Your task to perform on an android device: install app "DoorDash - Dasher" Image 0: 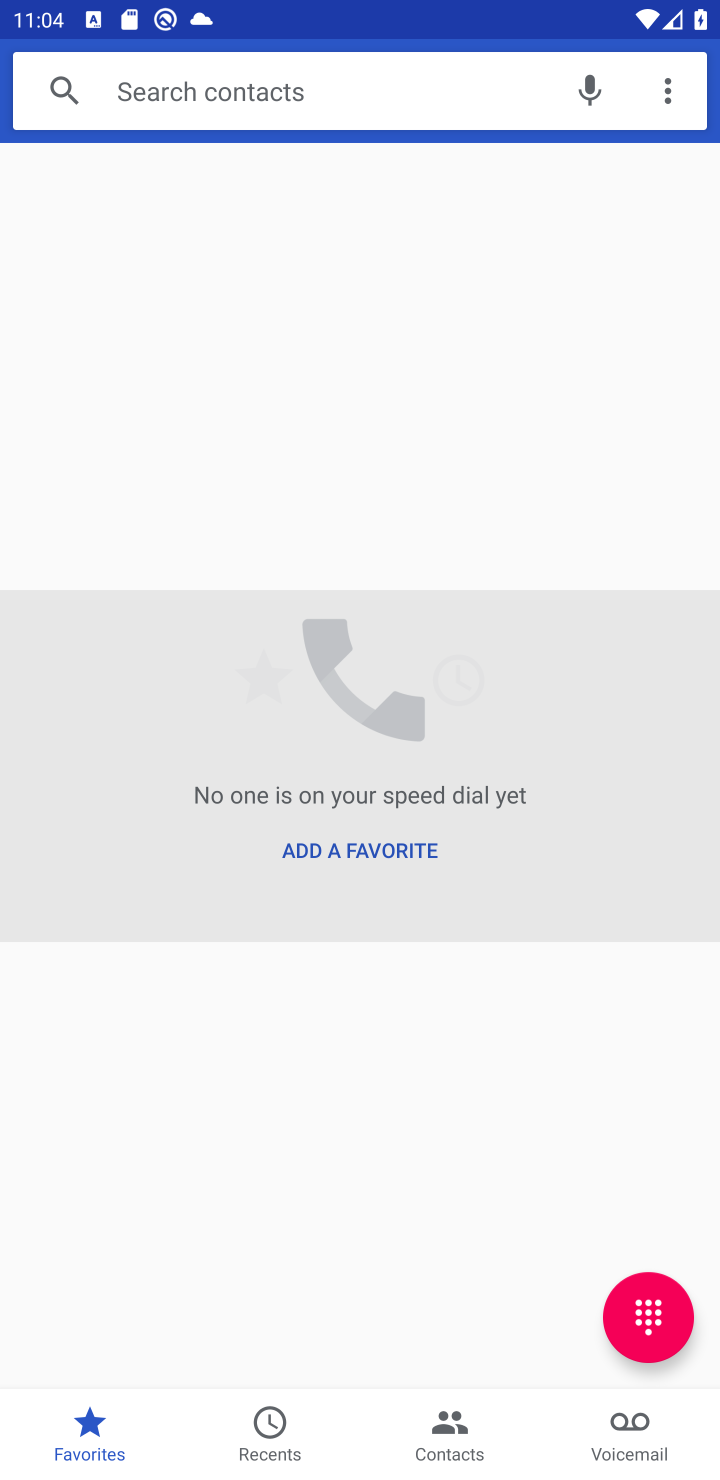
Step 0: press home button
Your task to perform on an android device: install app "DoorDash - Dasher" Image 1: 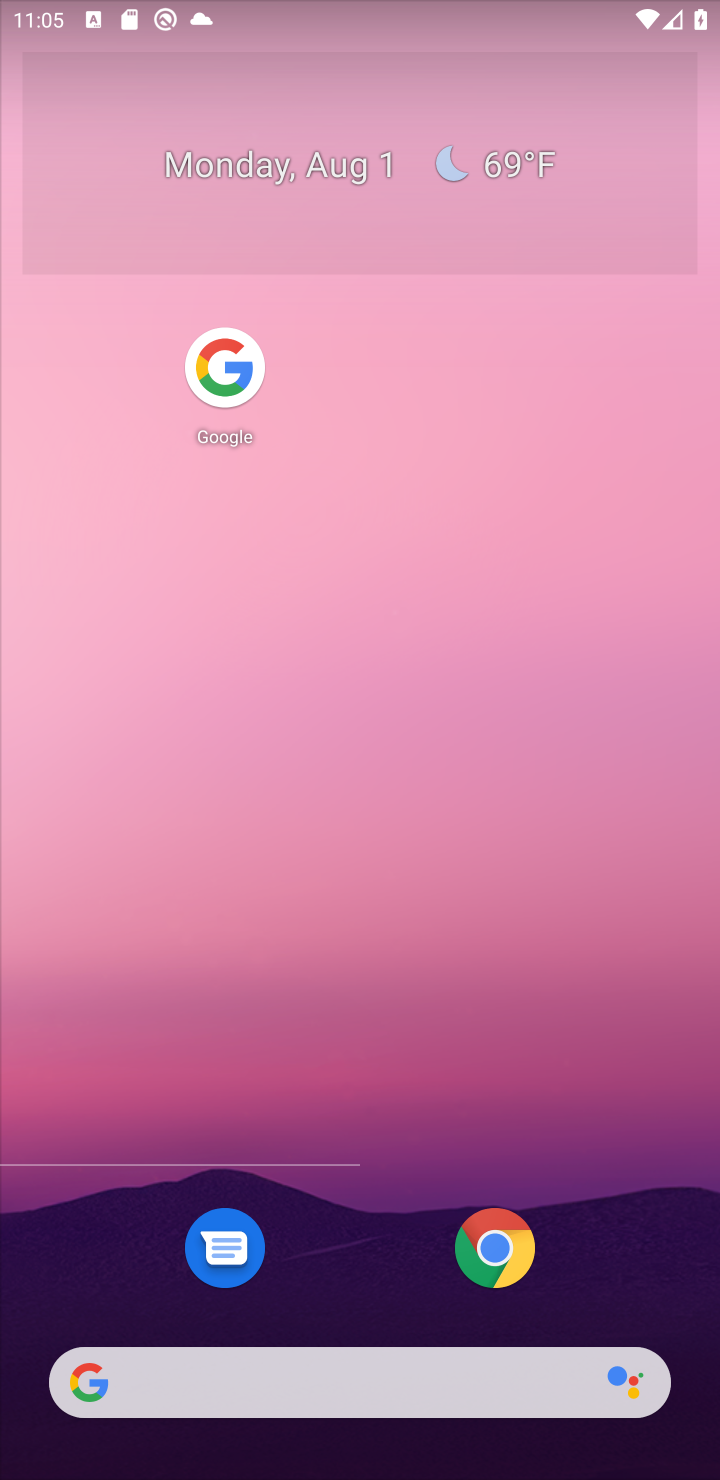
Step 1: drag from (401, 963) to (563, 14)
Your task to perform on an android device: install app "DoorDash - Dasher" Image 2: 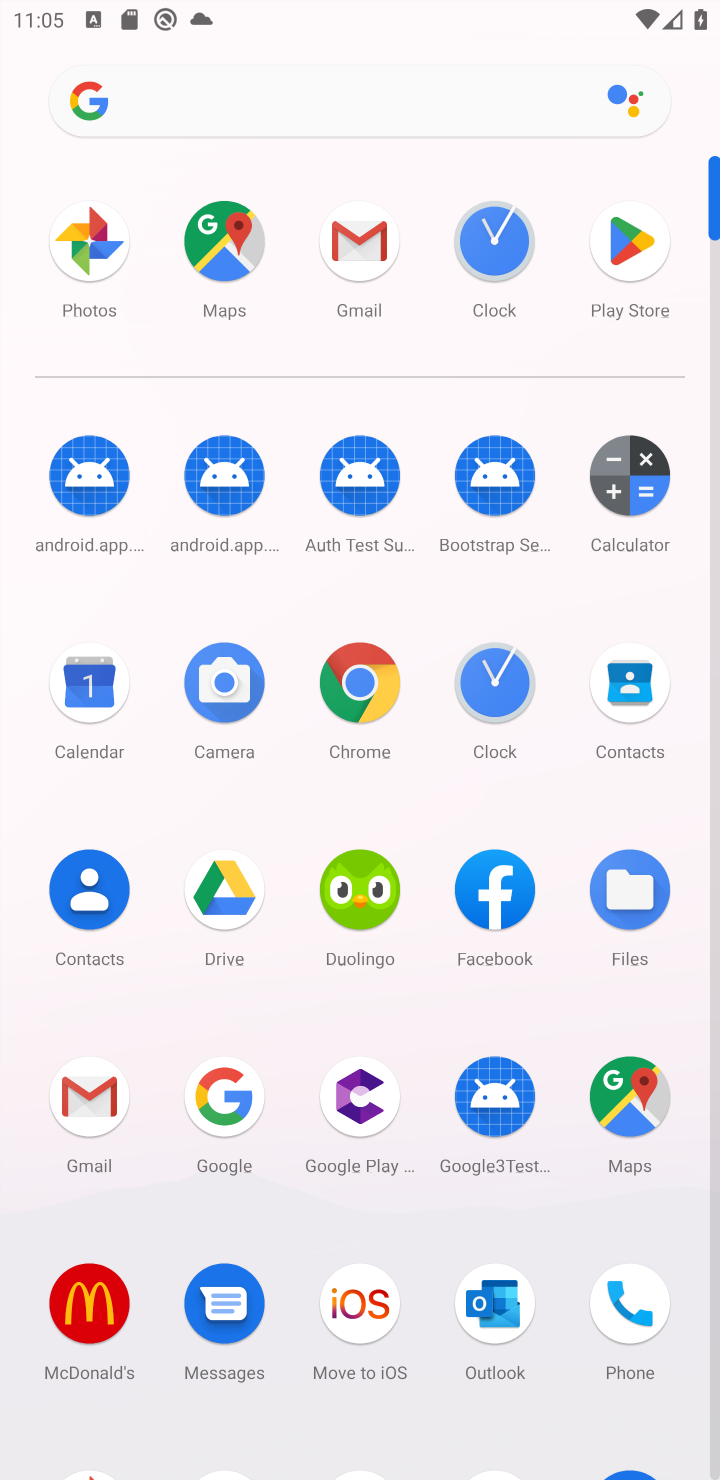
Step 2: click (624, 240)
Your task to perform on an android device: install app "DoorDash - Dasher" Image 3: 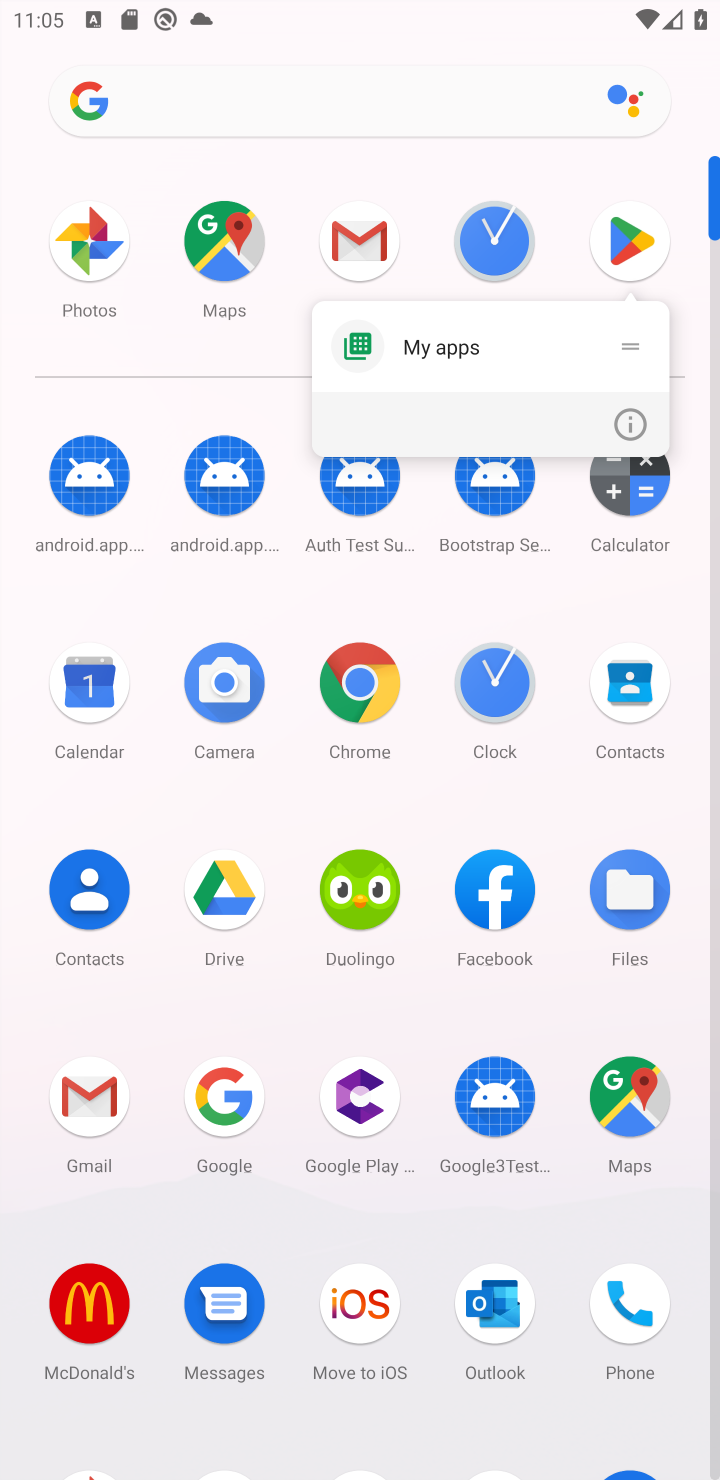
Step 3: click (276, 1180)
Your task to perform on an android device: install app "DoorDash - Dasher" Image 4: 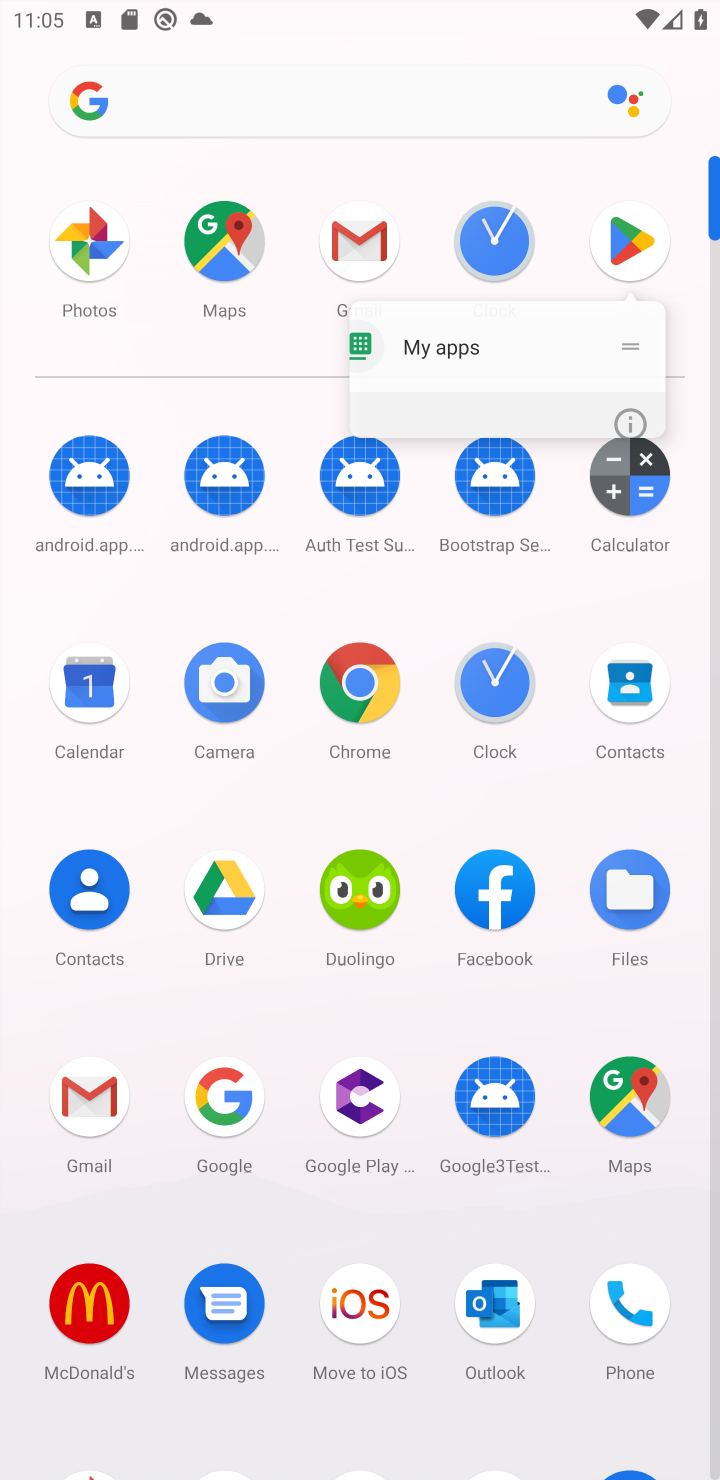
Step 4: drag from (278, 1229) to (388, 366)
Your task to perform on an android device: install app "DoorDash - Dasher" Image 5: 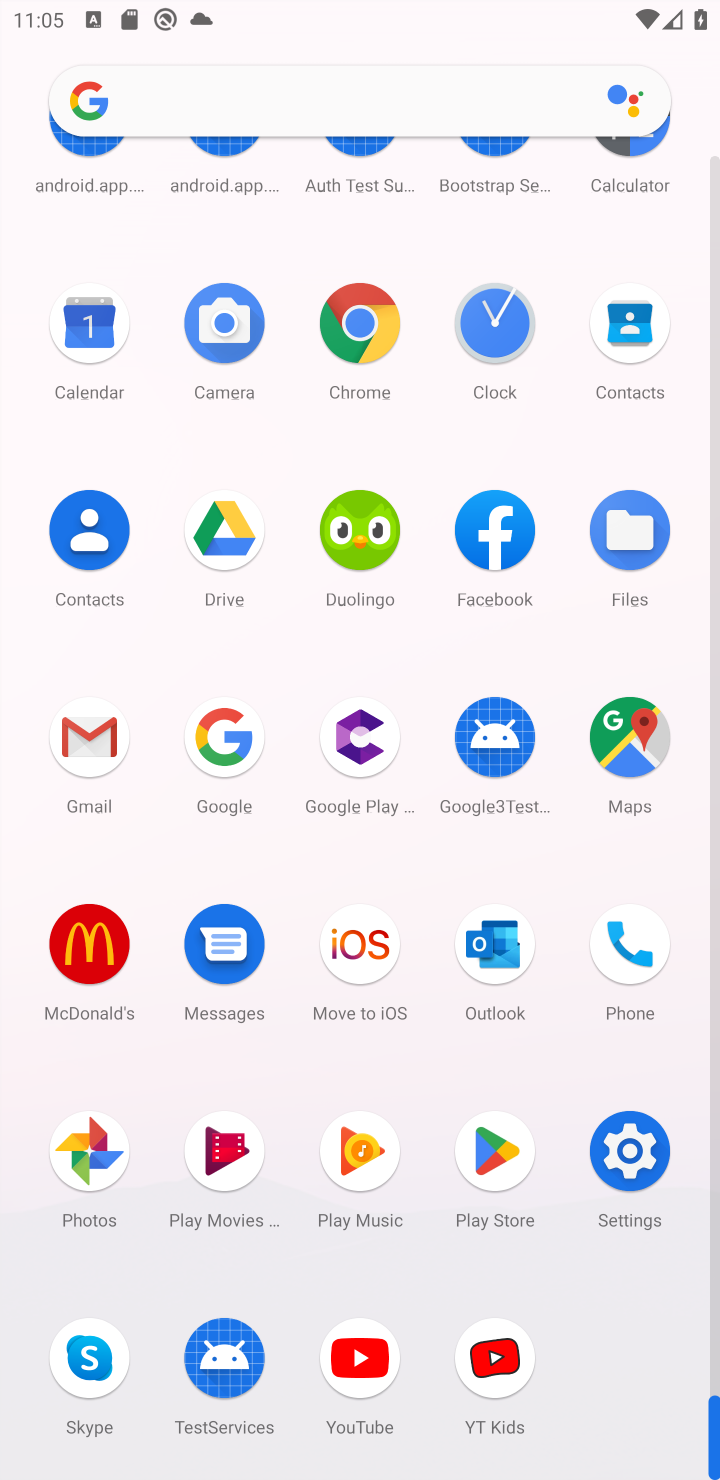
Step 5: click (485, 1161)
Your task to perform on an android device: install app "DoorDash - Dasher" Image 6: 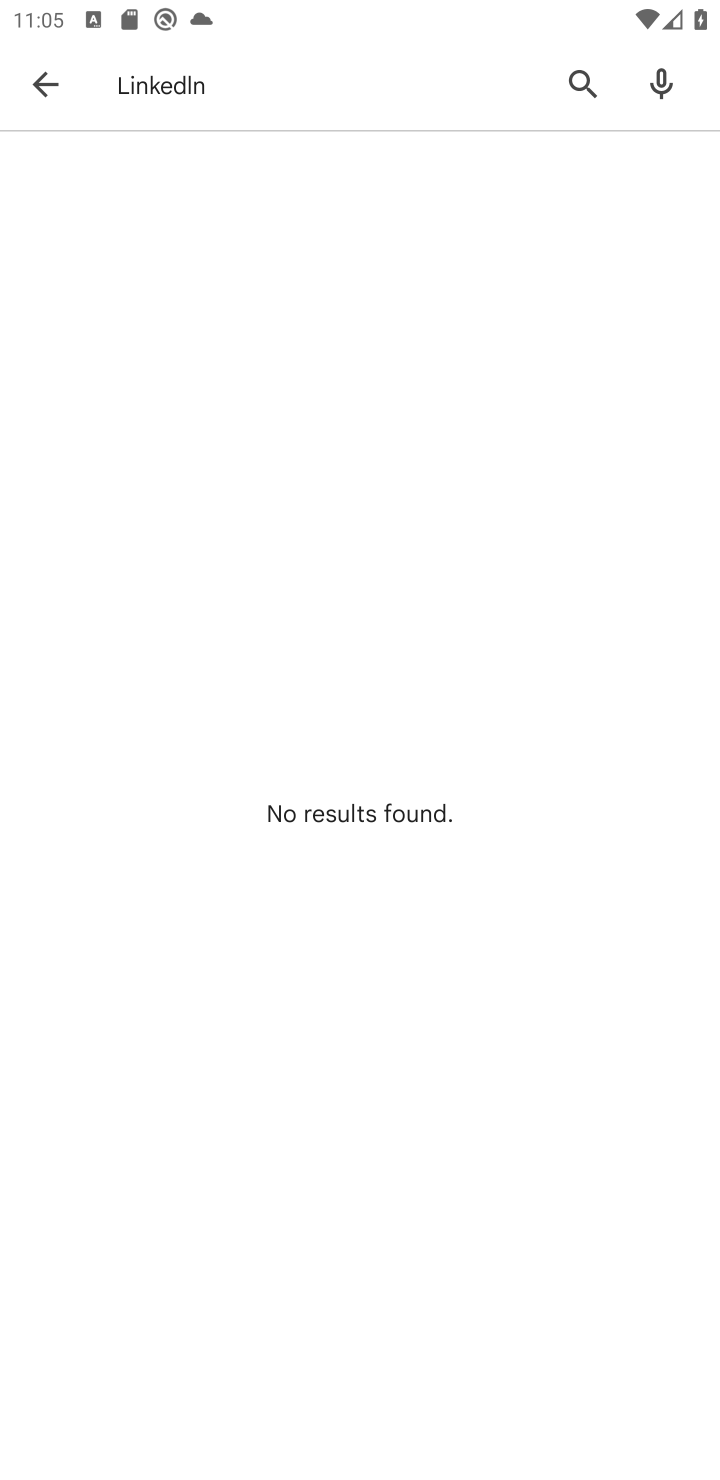
Step 6: click (382, 82)
Your task to perform on an android device: install app "DoorDash - Dasher" Image 7: 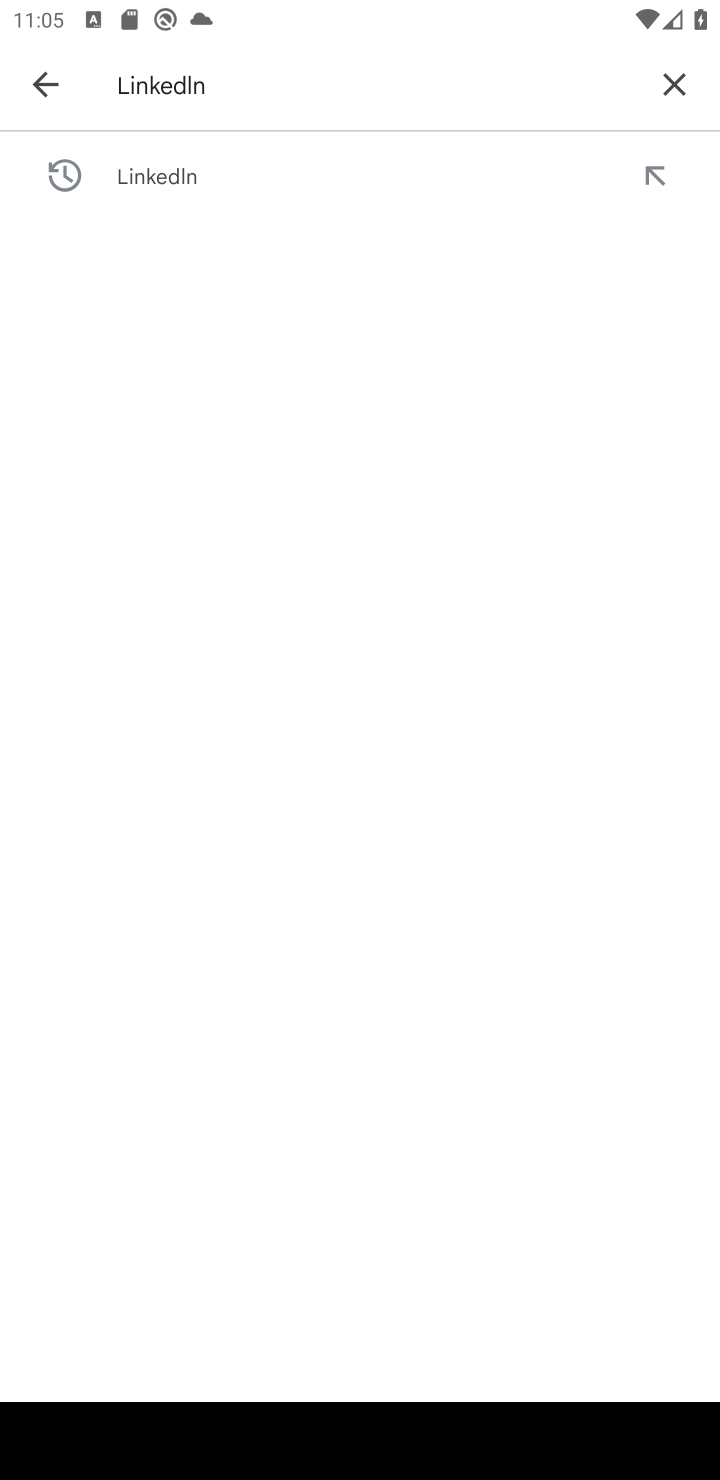
Step 7: click (680, 84)
Your task to perform on an android device: install app "DoorDash - Dasher" Image 8: 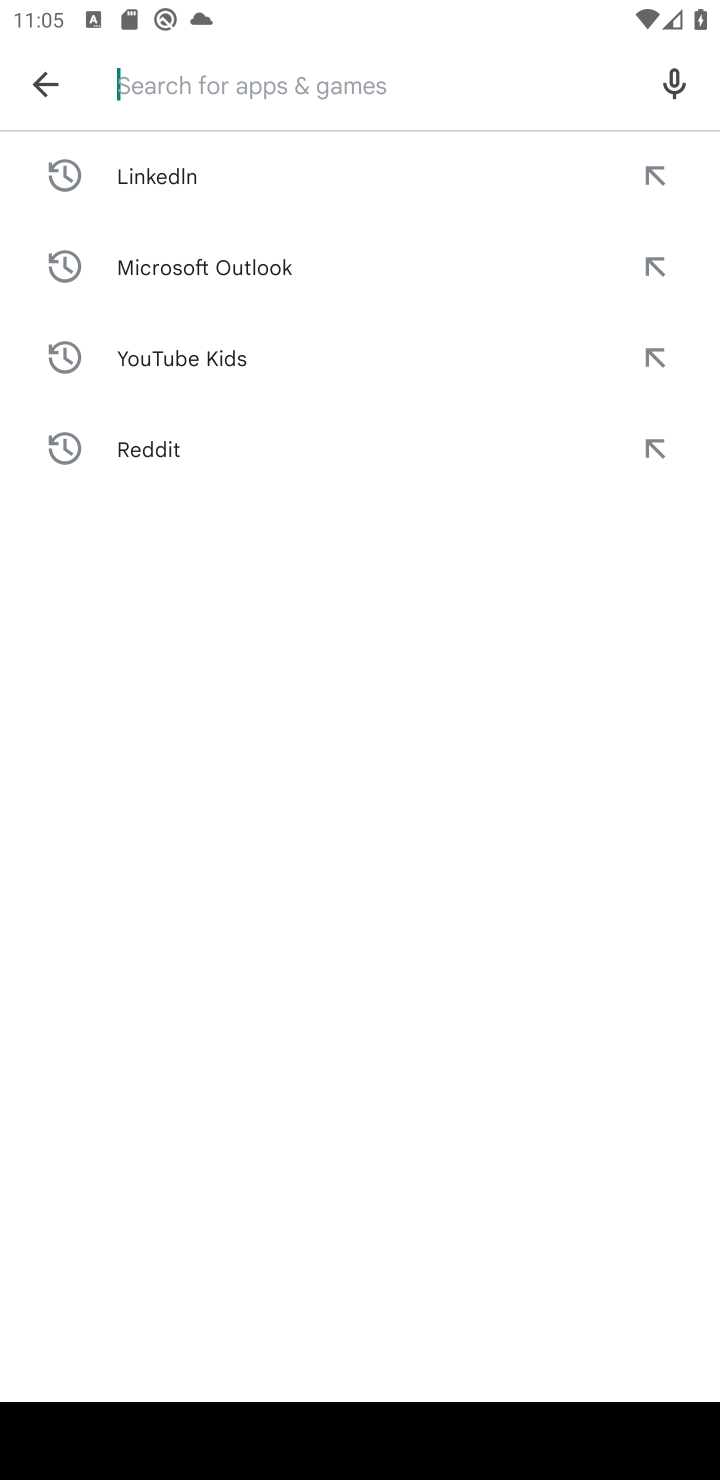
Step 8: type "DoorDash - Dasher"
Your task to perform on an android device: install app "DoorDash - Dasher" Image 9: 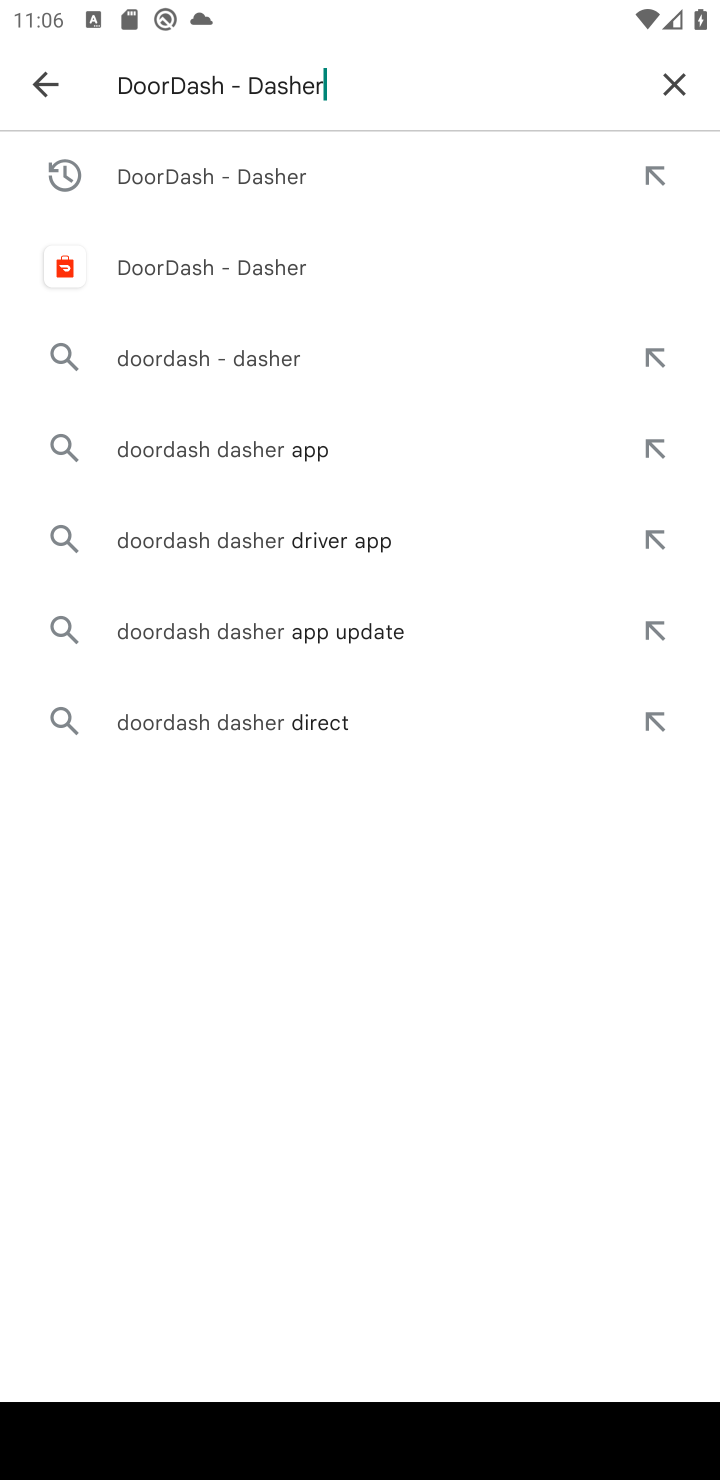
Step 9: press enter
Your task to perform on an android device: install app "DoorDash - Dasher" Image 10: 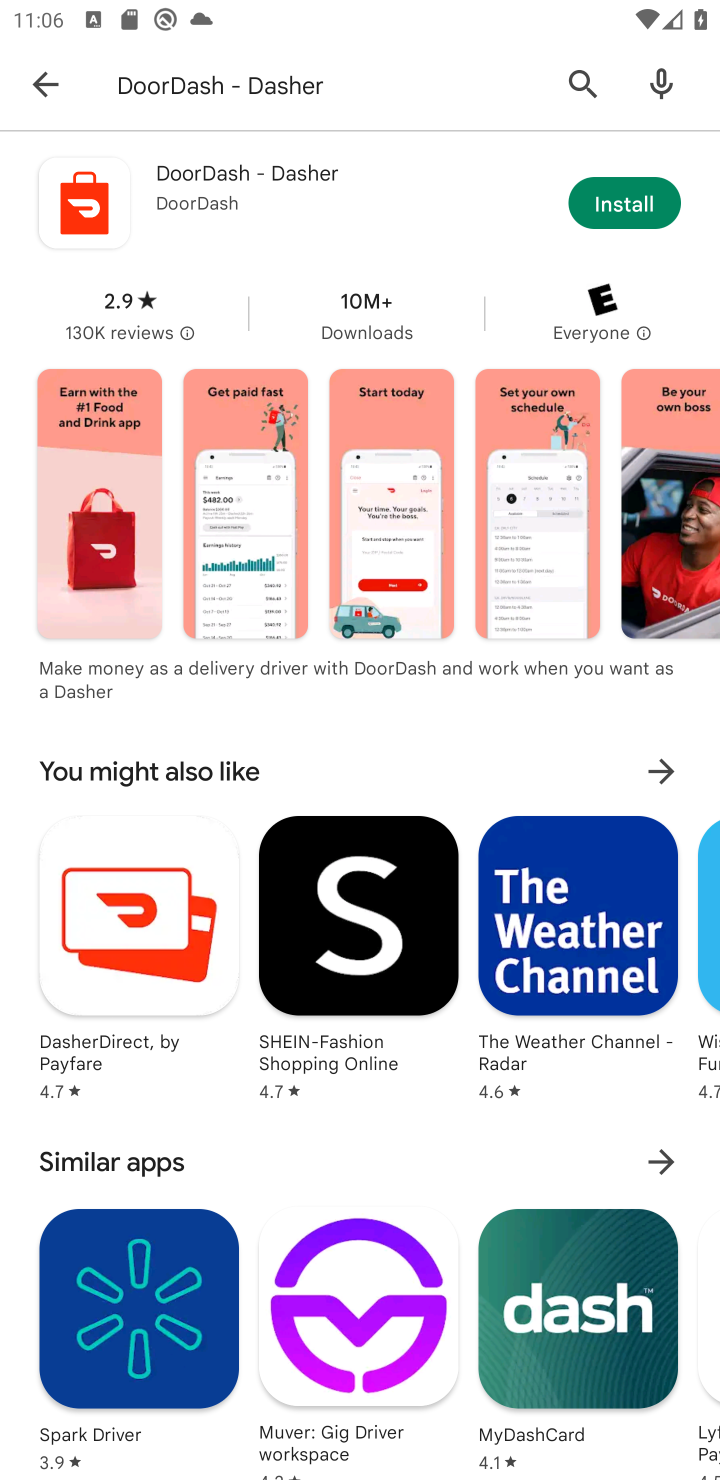
Step 10: click (629, 193)
Your task to perform on an android device: install app "DoorDash - Dasher" Image 11: 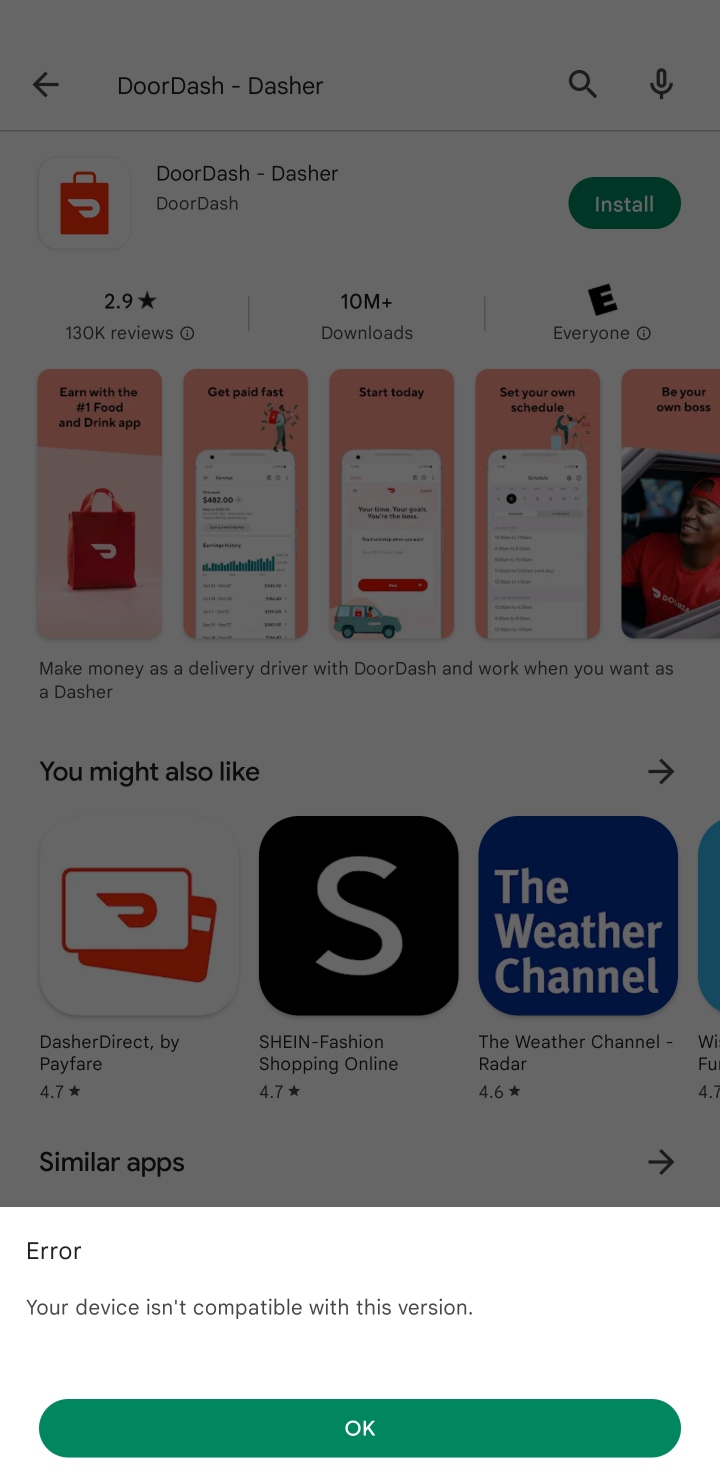
Step 11: click (154, 1407)
Your task to perform on an android device: install app "DoorDash - Dasher" Image 12: 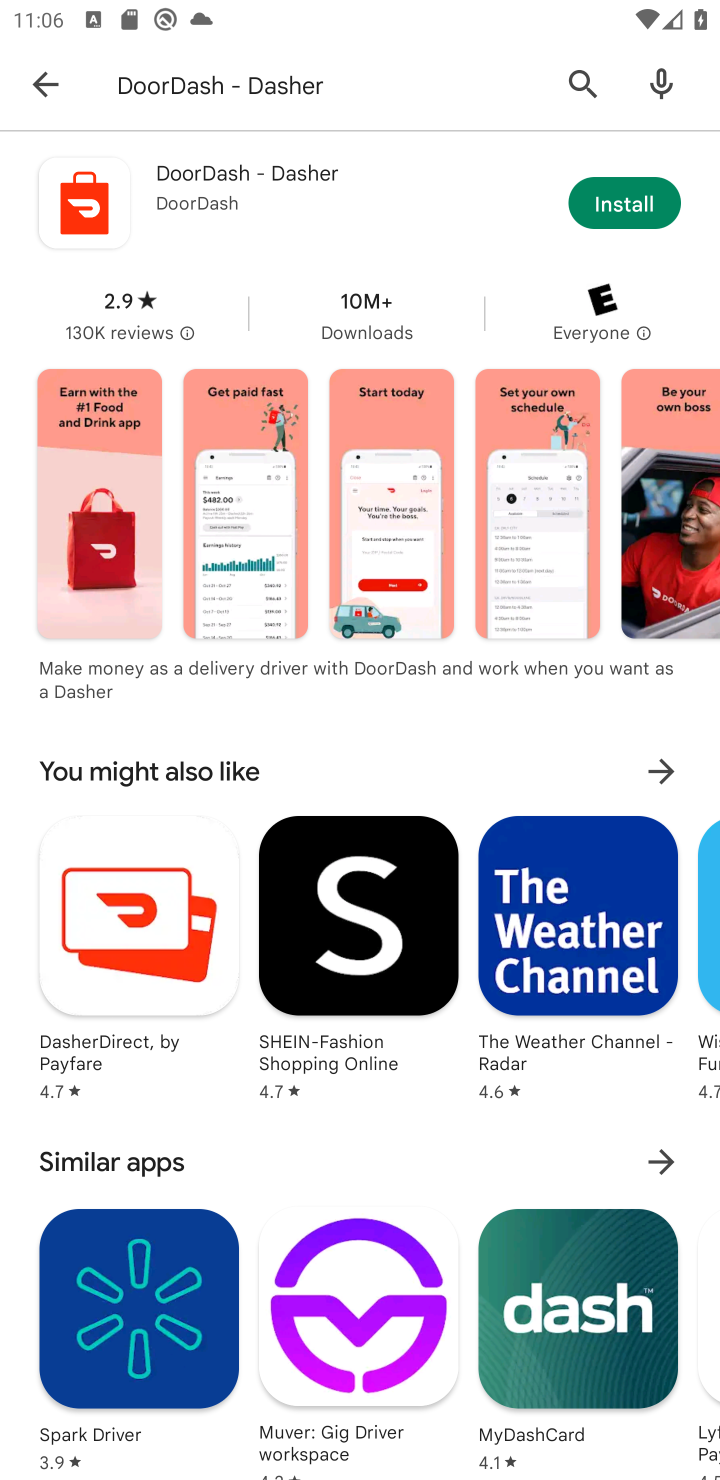
Step 12: click (673, 186)
Your task to perform on an android device: install app "DoorDash - Dasher" Image 13: 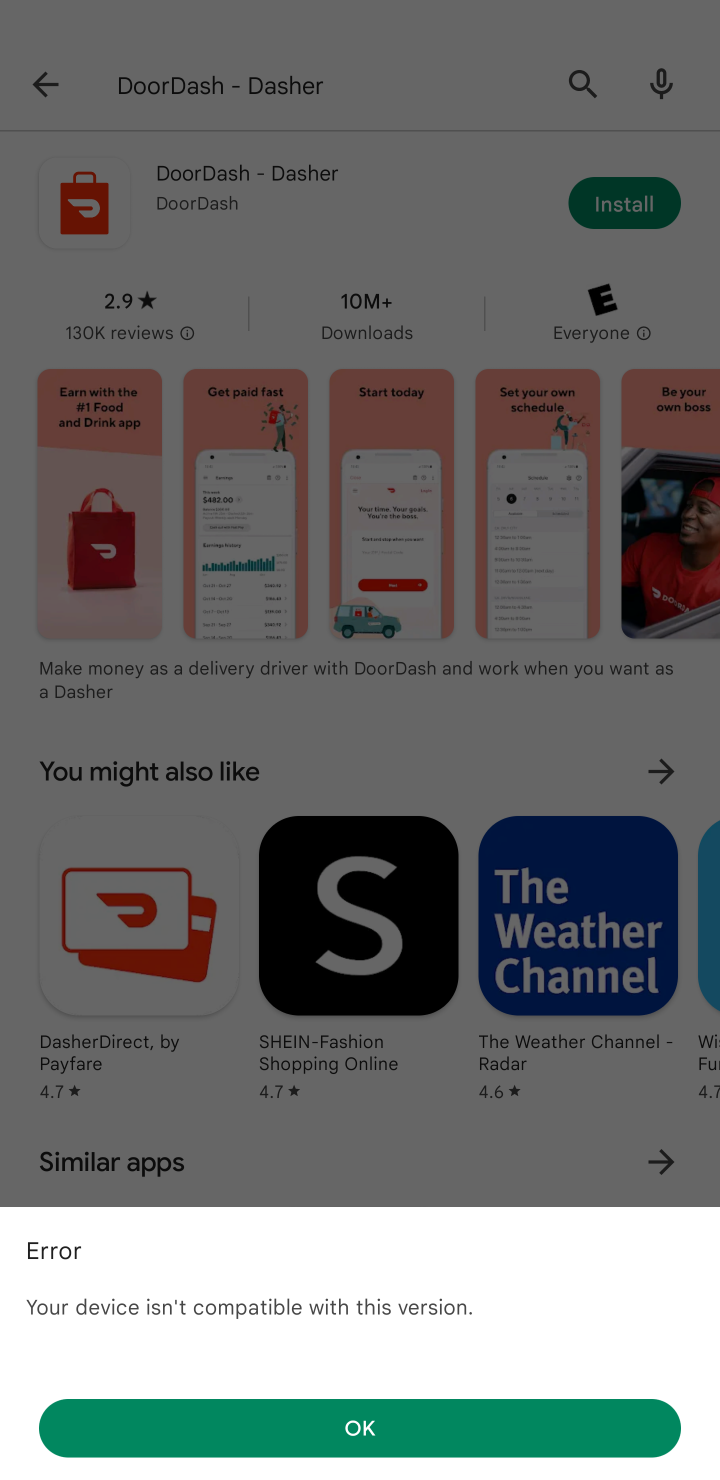
Step 13: click (550, 1404)
Your task to perform on an android device: install app "DoorDash - Dasher" Image 14: 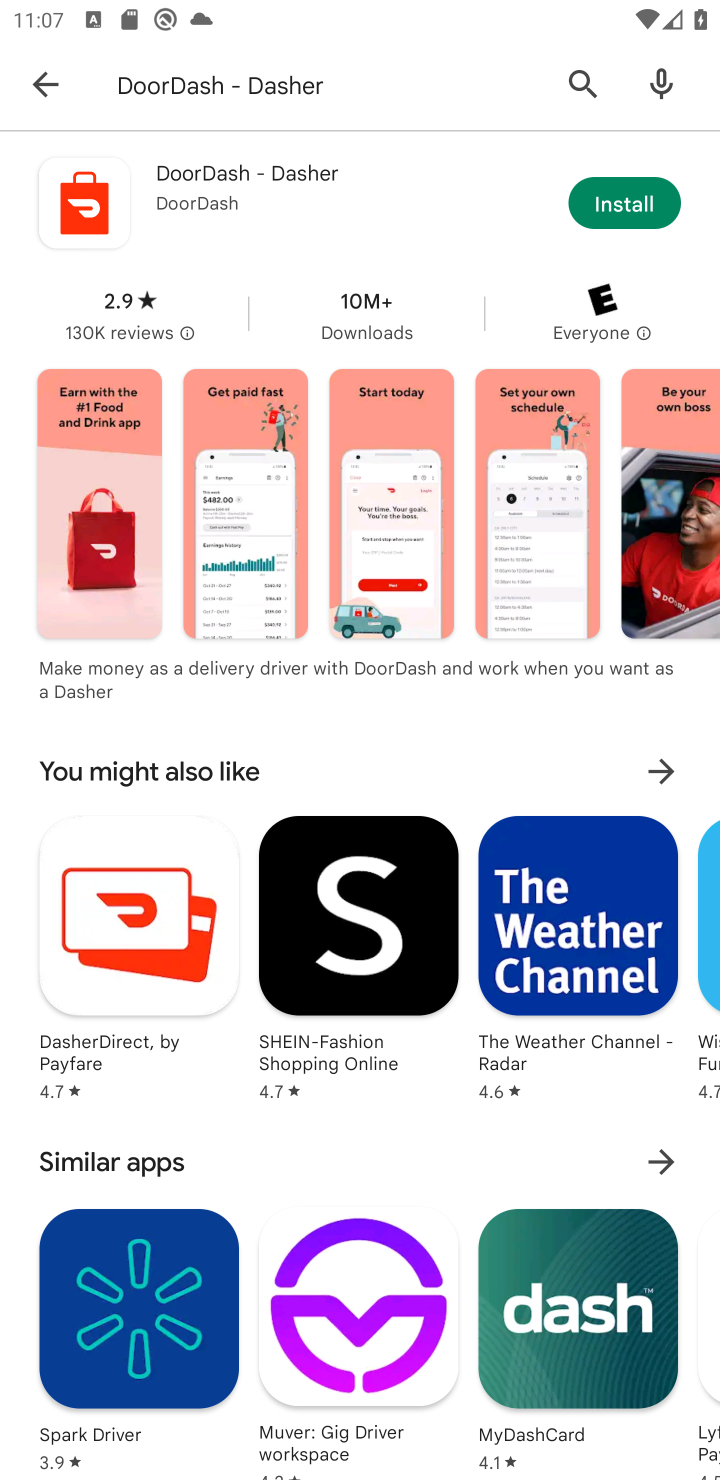
Step 14: click (624, 198)
Your task to perform on an android device: install app "DoorDash - Dasher" Image 15: 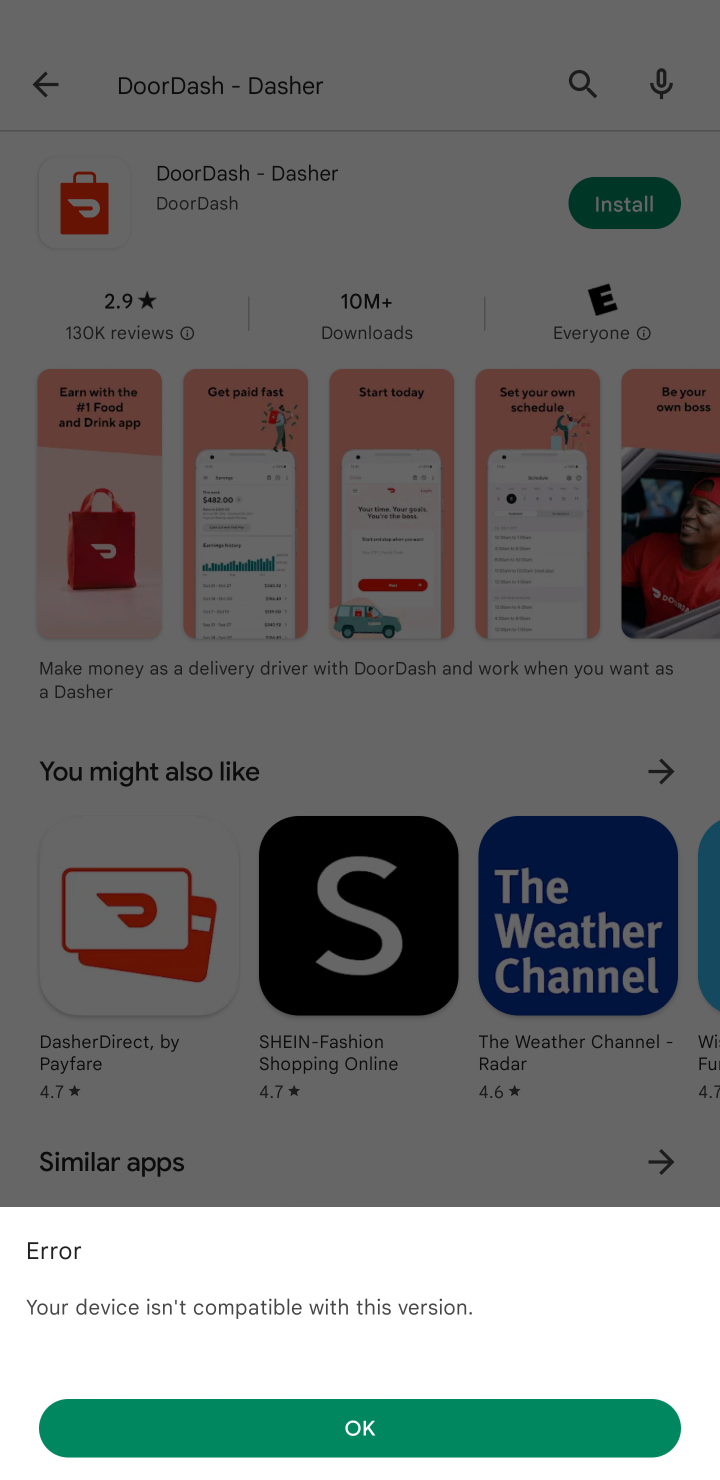
Step 15: task complete